Your task to perform on an android device: set an alarm Image 0: 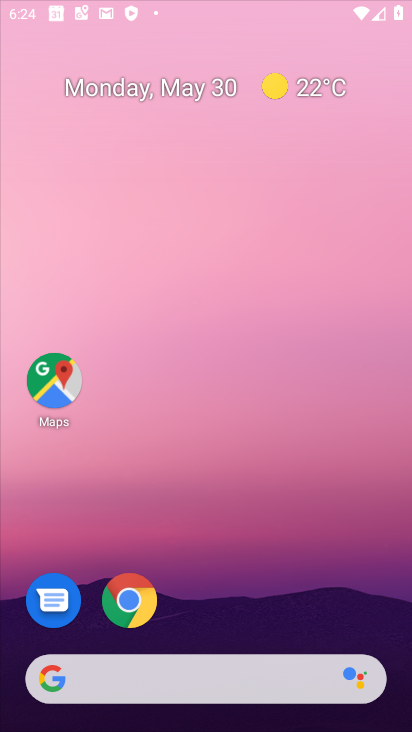
Step 0: press home button
Your task to perform on an android device: set an alarm Image 1: 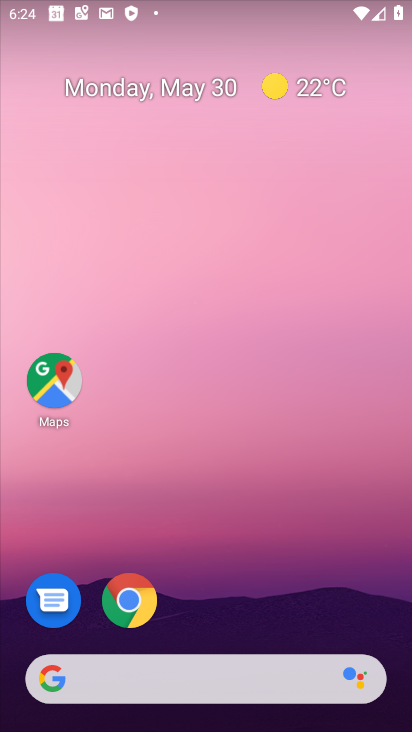
Step 1: drag from (247, 644) to (285, 299)
Your task to perform on an android device: set an alarm Image 2: 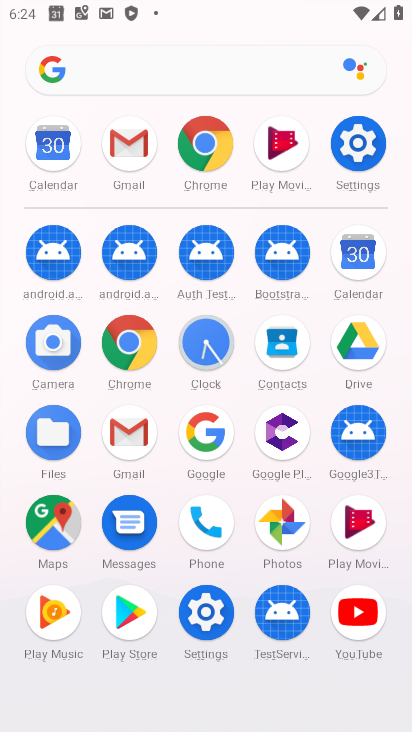
Step 2: click (195, 334)
Your task to perform on an android device: set an alarm Image 3: 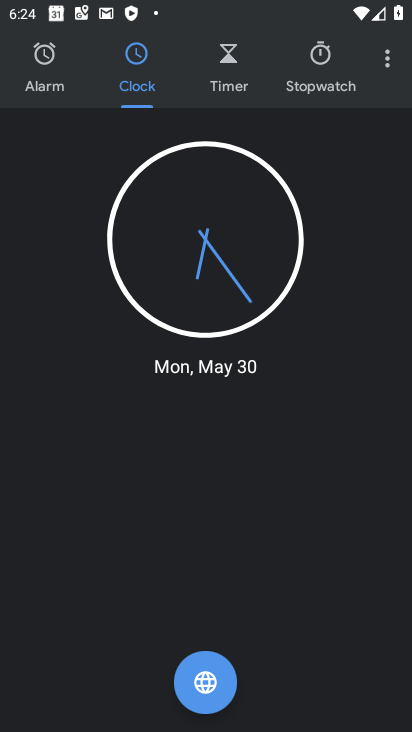
Step 3: click (56, 73)
Your task to perform on an android device: set an alarm Image 4: 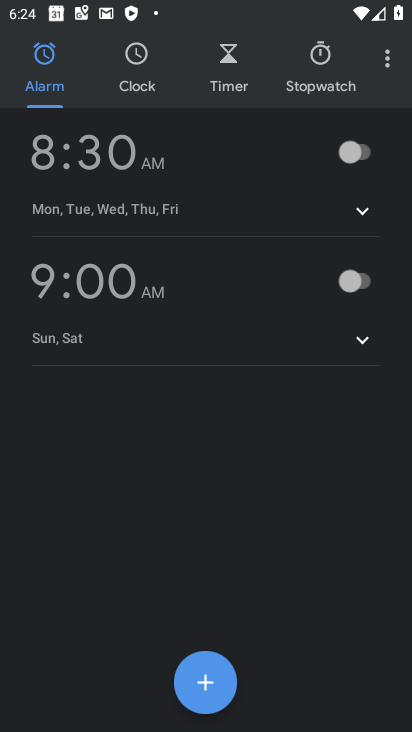
Step 4: click (357, 154)
Your task to perform on an android device: set an alarm Image 5: 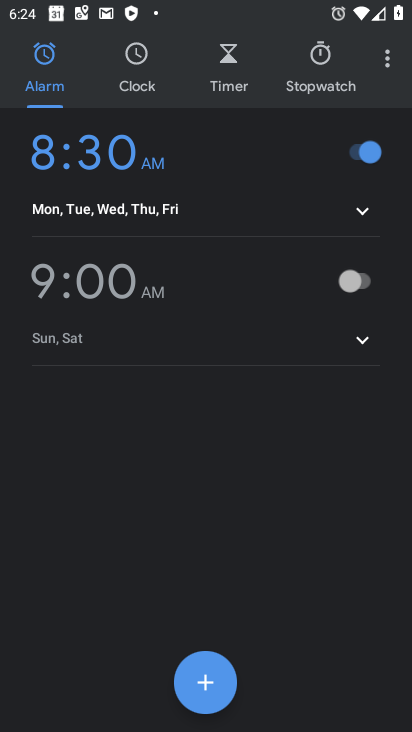
Step 5: task complete